Your task to perform on an android device: Open calendar and show me the fourth week of next month Image 0: 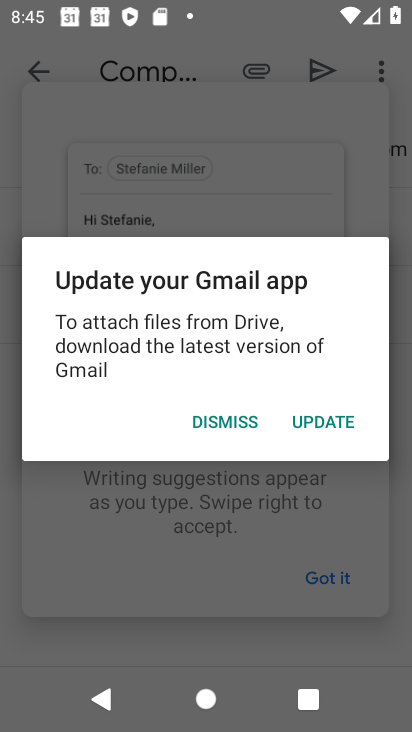
Step 0: press home button
Your task to perform on an android device: Open calendar and show me the fourth week of next month Image 1: 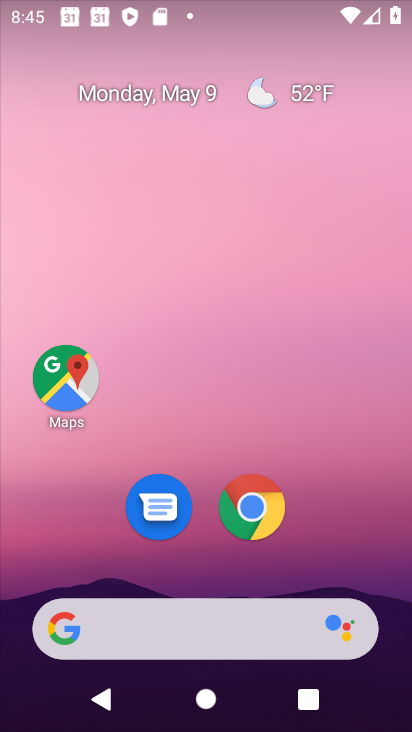
Step 1: drag from (313, 560) to (337, 28)
Your task to perform on an android device: Open calendar and show me the fourth week of next month Image 2: 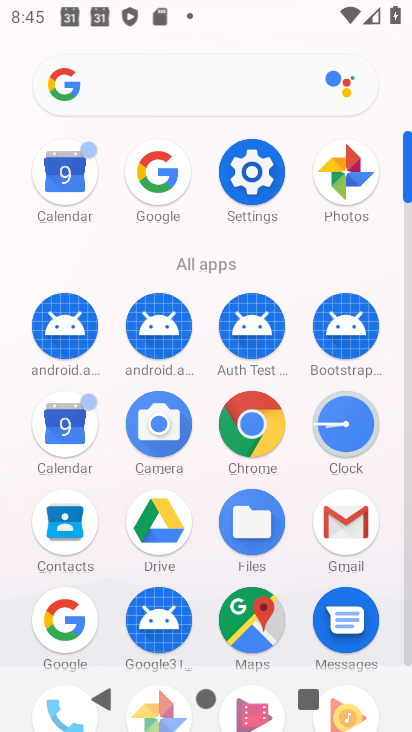
Step 2: click (63, 170)
Your task to perform on an android device: Open calendar and show me the fourth week of next month Image 3: 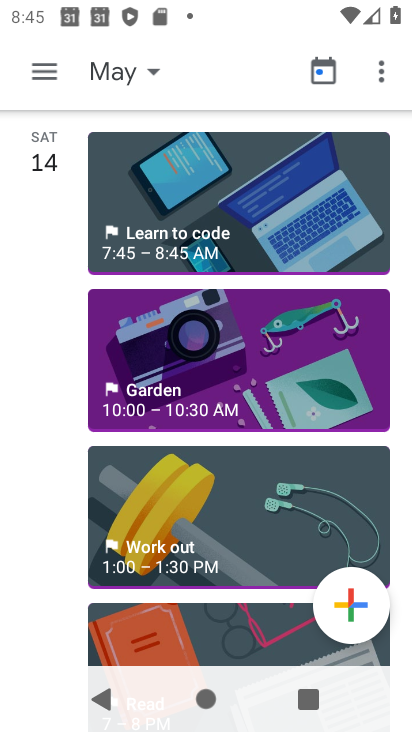
Step 3: click (325, 70)
Your task to perform on an android device: Open calendar and show me the fourth week of next month Image 4: 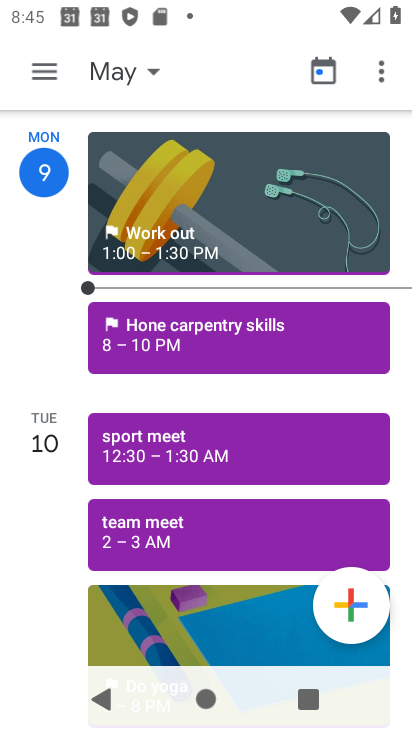
Step 4: click (153, 72)
Your task to perform on an android device: Open calendar and show me the fourth week of next month Image 5: 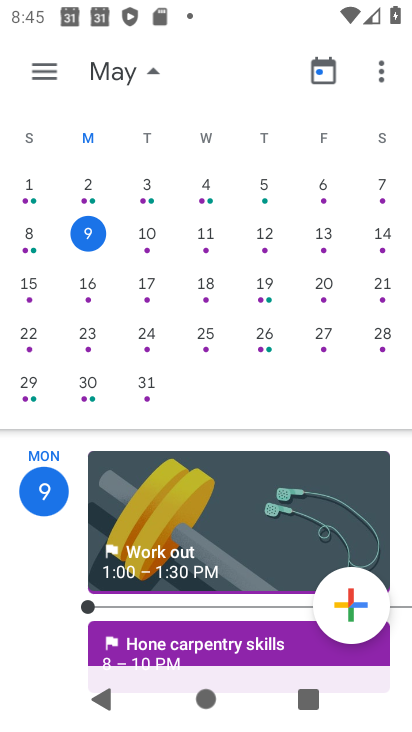
Step 5: drag from (359, 269) to (0, 223)
Your task to perform on an android device: Open calendar and show me the fourth week of next month Image 6: 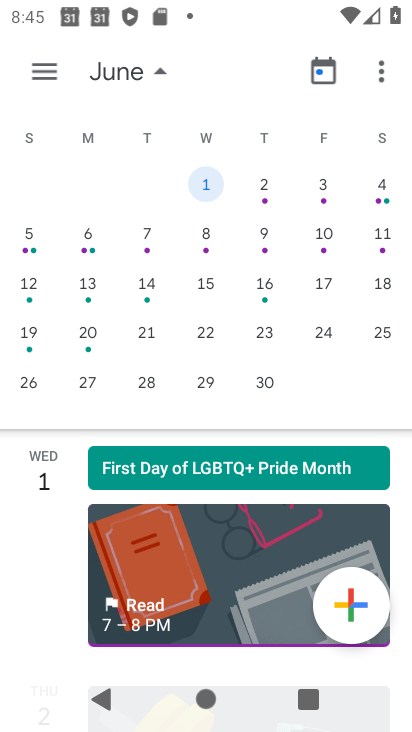
Step 6: click (92, 374)
Your task to perform on an android device: Open calendar and show me the fourth week of next month Image 7: 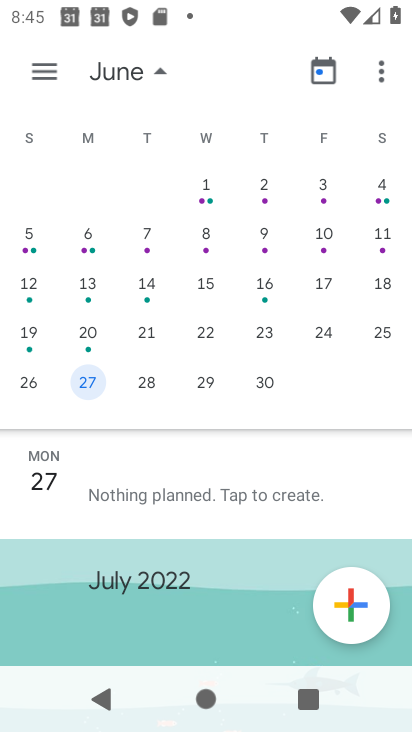
Step 7: click (51, 75)
Your task to perform on an android device: Open calendar and show me the fourth week of next month Image 8: 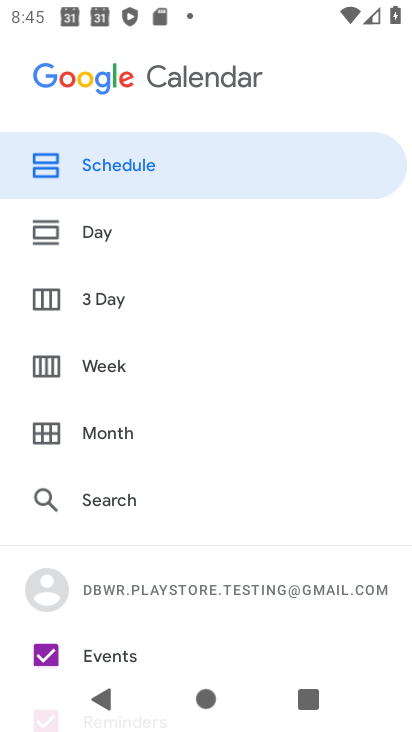
Step 8: click (104, 377)
Your task to perform on an android device: Open calendar and show me the fourth week of next month Image 9: 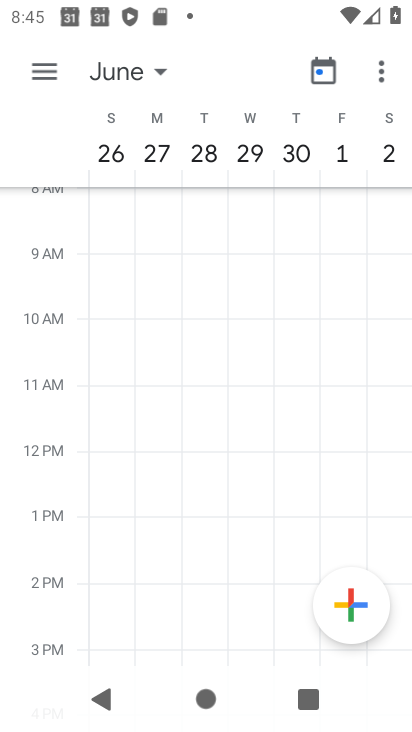
Step 9: task complete